Your task to perform on an android device: What is the news today? Image 0: 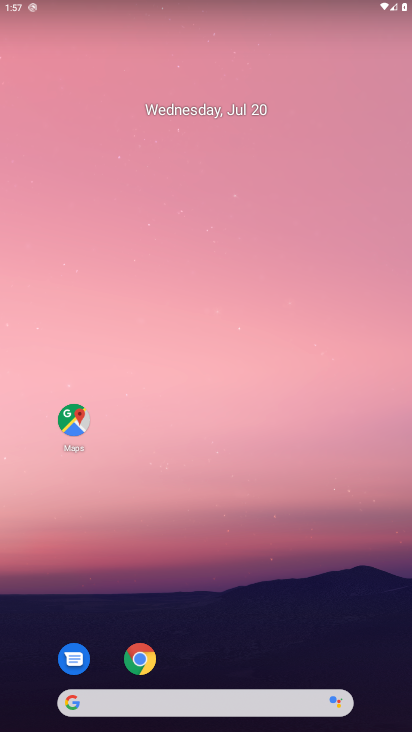
Step 0: click (103, 702)
Your task to perform on an android device: What is the news today? Image 1: 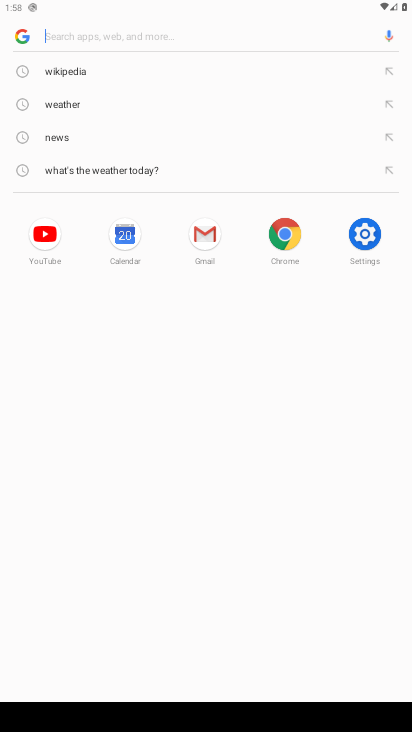
Step 1: type "What is the news today?"
Your task to perform on an android device: What is the news today? Image 2: 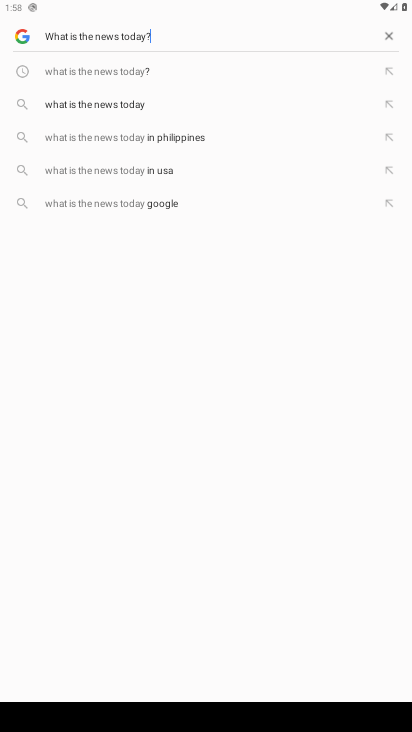
Step 2: type ""
Your task to perform on an android device: What is the news today? Image 3: 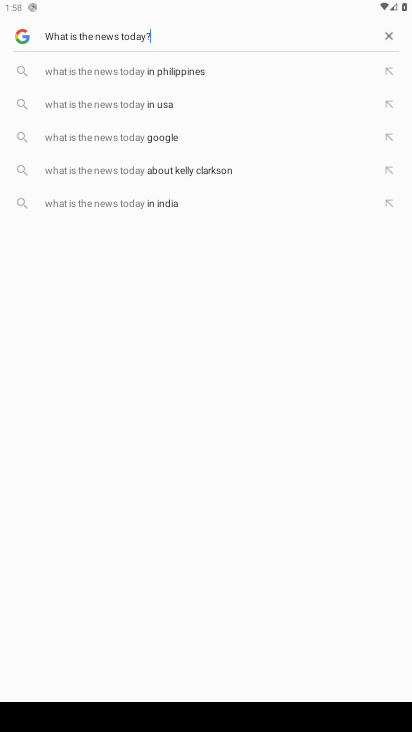
Step 3: type ""
Your task to perform on an android device: What is the news today? Image 4: 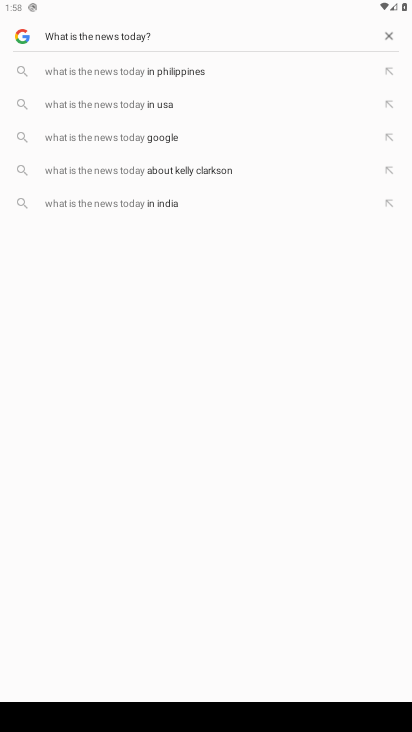
Step 4: type ""
Your task to perform on an android device: What is the news today? Image 5: 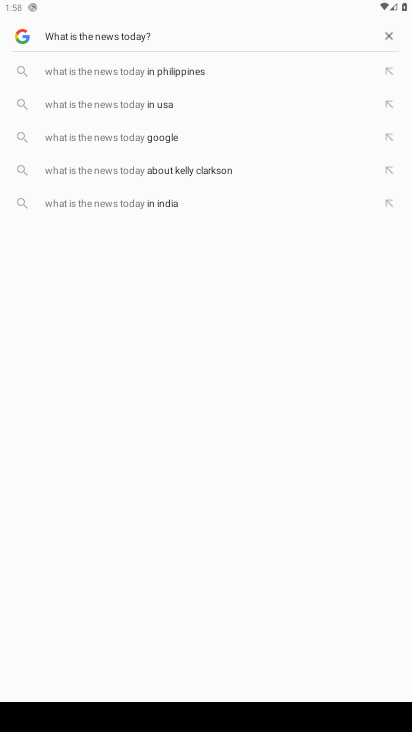
Step 5: task complete